Your task to perform on an android device: Open CNN.com Image 0: 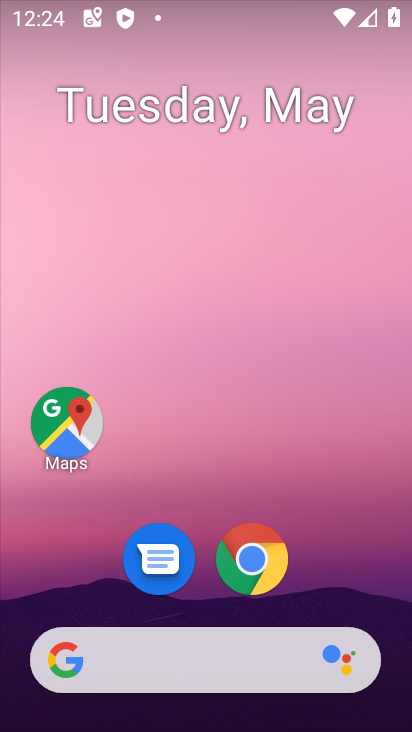
Step 0: click (281, 571)
Your task to perform on an android device: Open CNN.com Image 1: 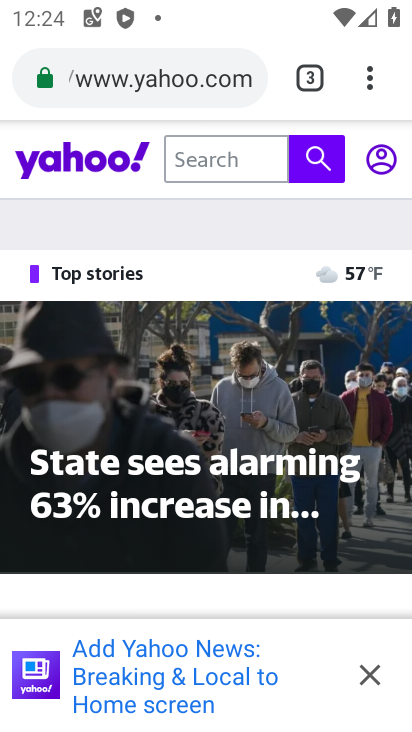
Step 1: click (201, 91)
Your task to perform on an android device: Open CNN.com Image 2: 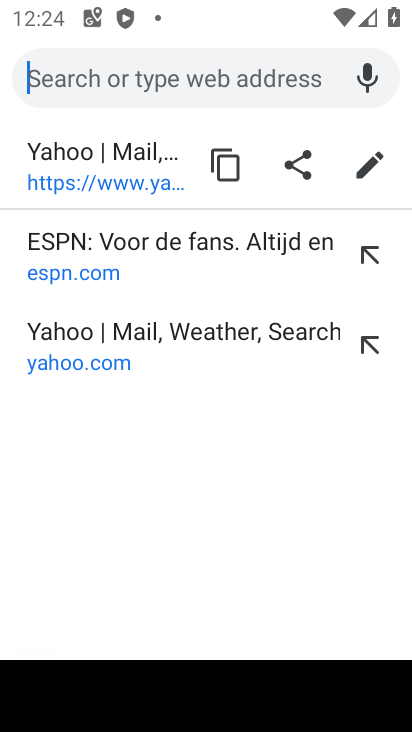
Step 2: type "cnn.com"
Your task to perform on an android device: Open CNN.com Image 3: 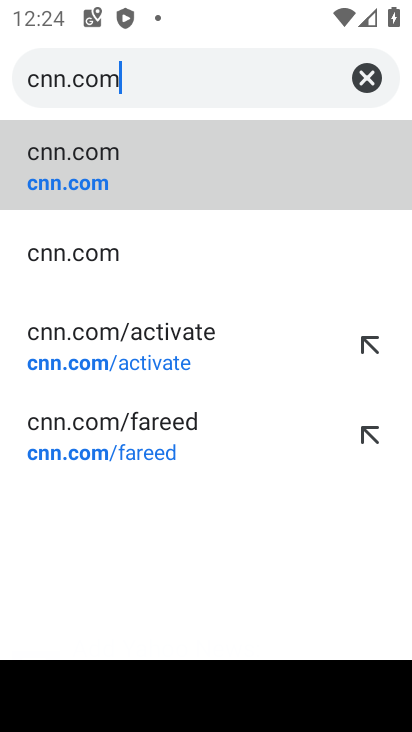
Step 3: click (139, 157)
Your task to perform on an android device: Open CNN.com Image 4: 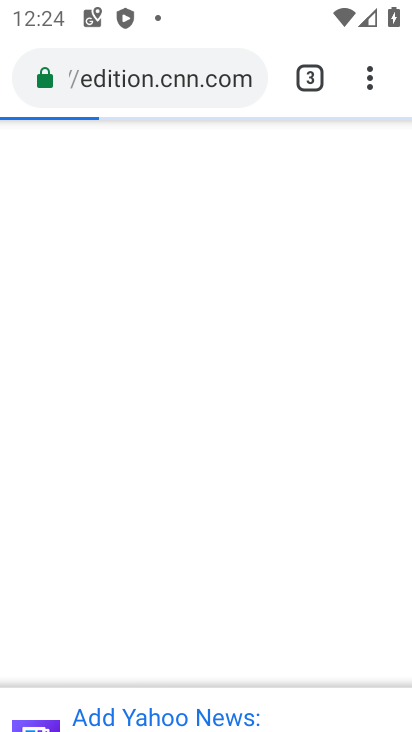
Step 4: task complete